Your task to perform on an android device: Open Youtube and go to the subscriptions tab Image 0: 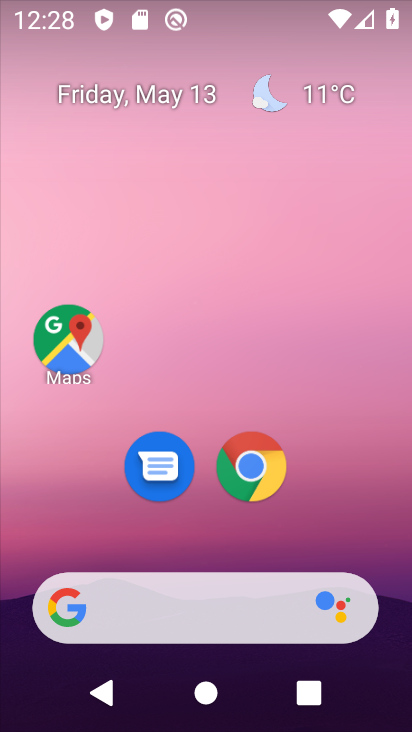
Step 0: drag from (133, 490) to (173, 124)
Your task to perform on an android device: Open Youtube and go to the subscriptions tab Image 1: 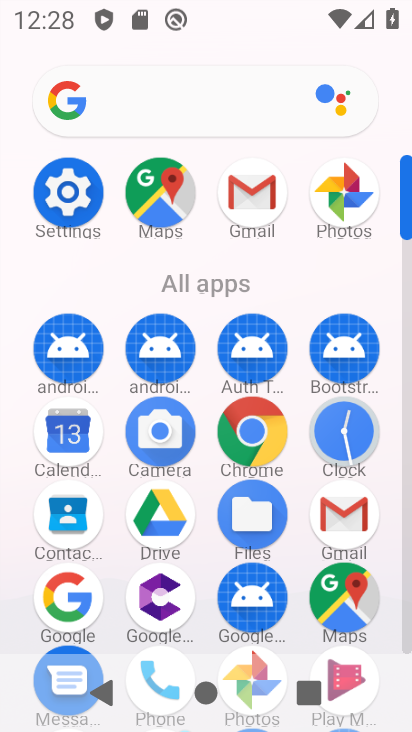
Step 1: drag from (191, 636) to (247, 205)
Your task to perform on an android device: Open Youtube and go to the subscriptions tab Image 2: 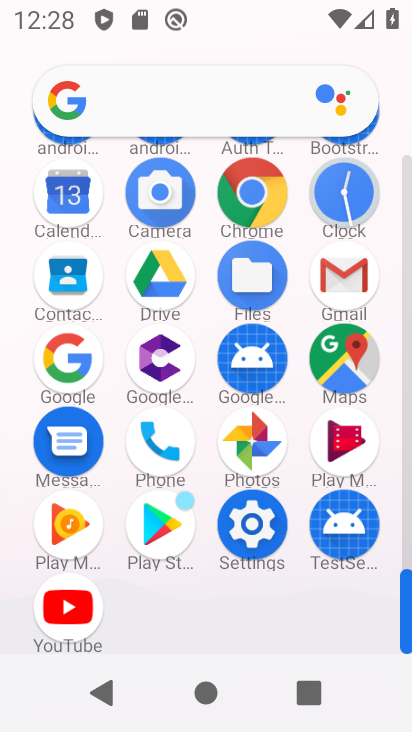
Step 2: click (74, 594)
Your task to perform on an android device: Open Youtube and go to the subscriptions tab Image 3: 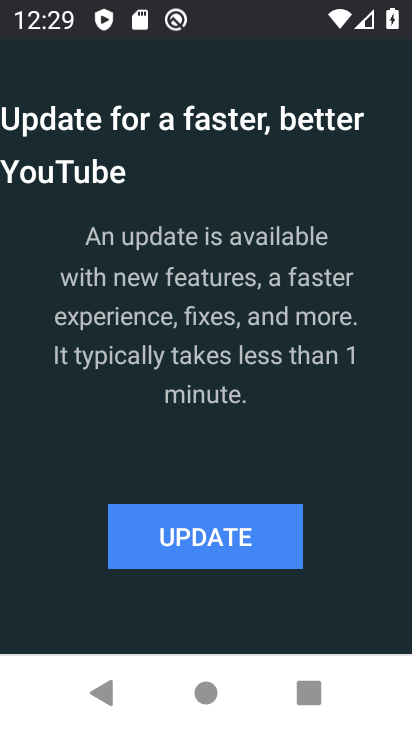
Step 3: click (234, 552)
Your task to perform on an android device: Open Youtube and go to the subscriptions tab Image 4: 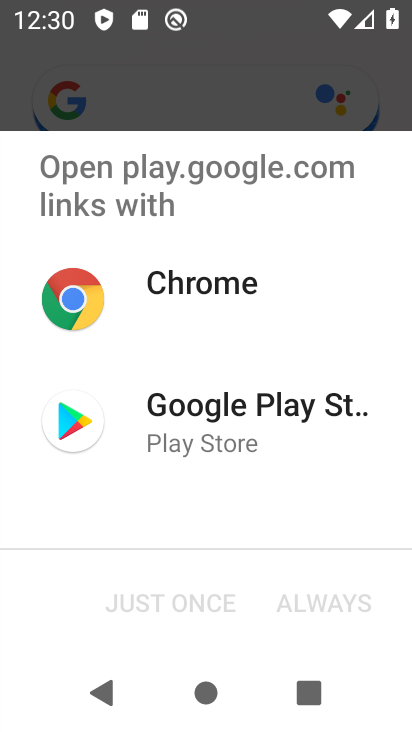
Step 4: click (217, 408)
Your task to perform on an android device: Open Youtube and go to the subscriptions tab Image 5: 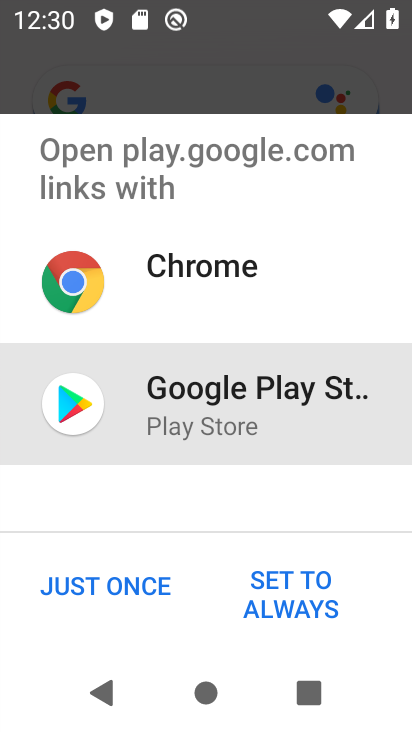
Step 5: click (121, 583)
Your task to perform on an android device: Open Youtube and go to the subscriptions tab Image 6: 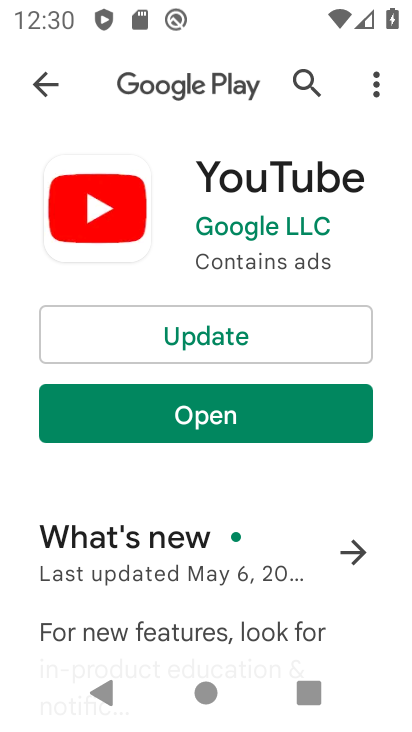
Step 6: click (238, 334)
Your task to perform on an android device: Open Youtube and go to the subscriptions tab Image 7: 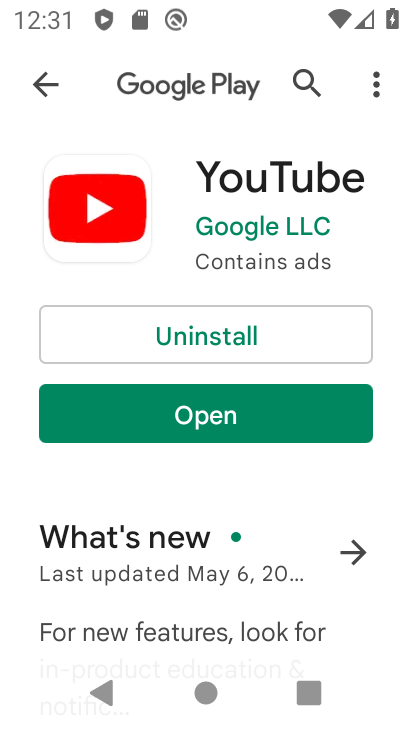
Step 7: click (232, 418)
Your task to perform on an android device: Open Youtube and go to the subscriptions tab Image 8: 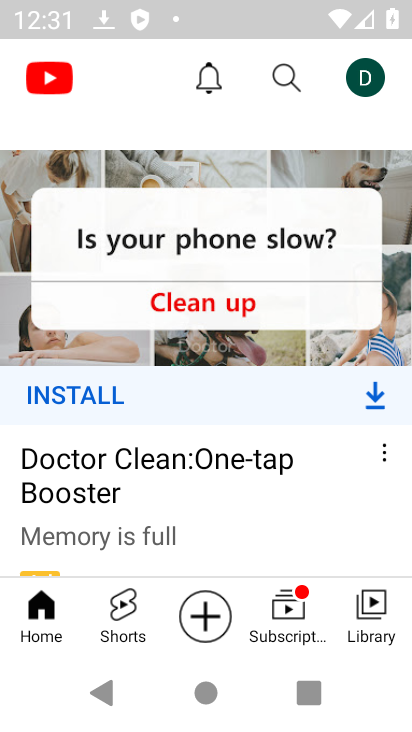
Step 8: click (290, 616)
Your task to perform on an android device: Open Youtube and go to the subscriptions tab Image 9: 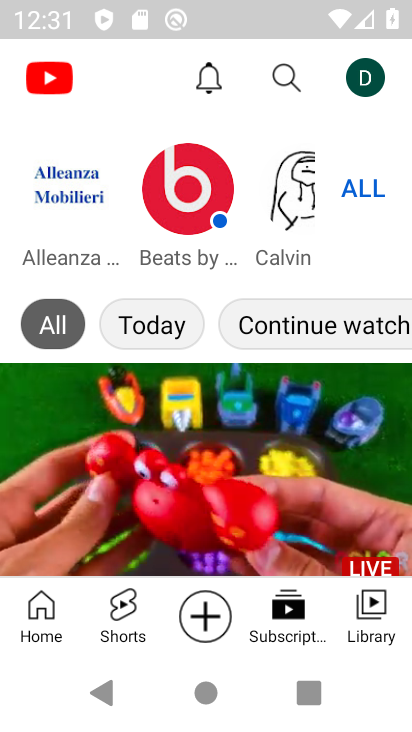
Step 9: task complete